Your task to perform on an android device: When is my next appointment? Image 0: 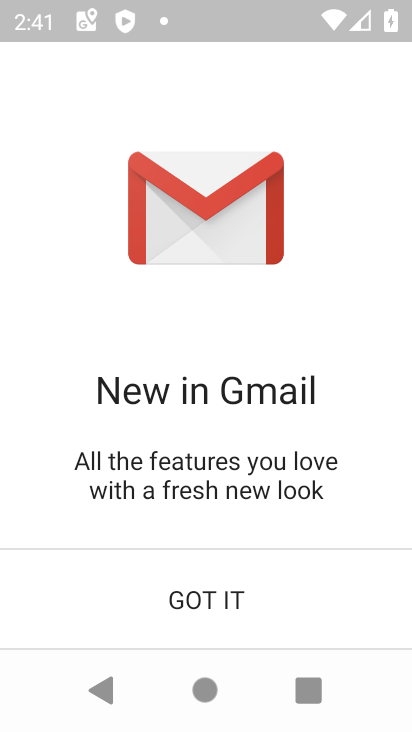
Step 0: click (172, 601)
Your task to perform on an android device: When is my next appointment? Image 1: 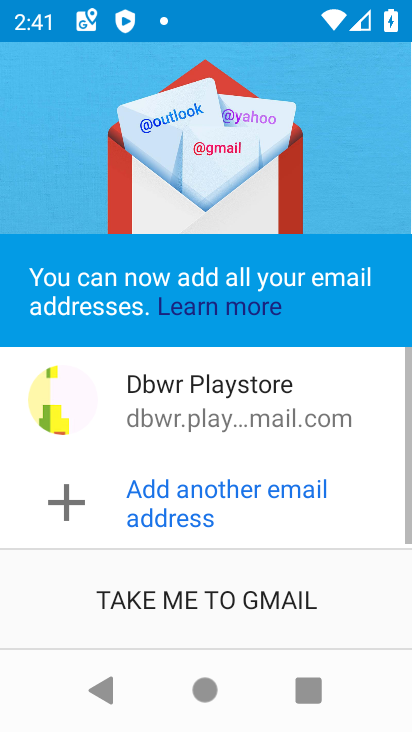
Step 1: press home button
Your task to perform on an android device: When is my next appointment? Image 2: 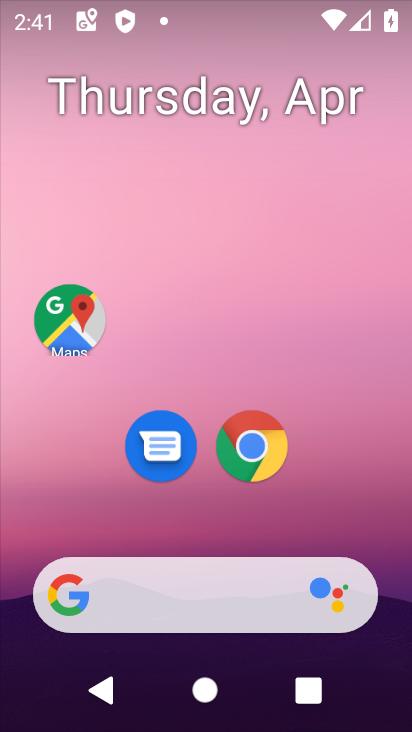
Step 2: drag from (225, 624) to (298, 157)
Your task to perform on an android device: When is my next appointment? Image 3: 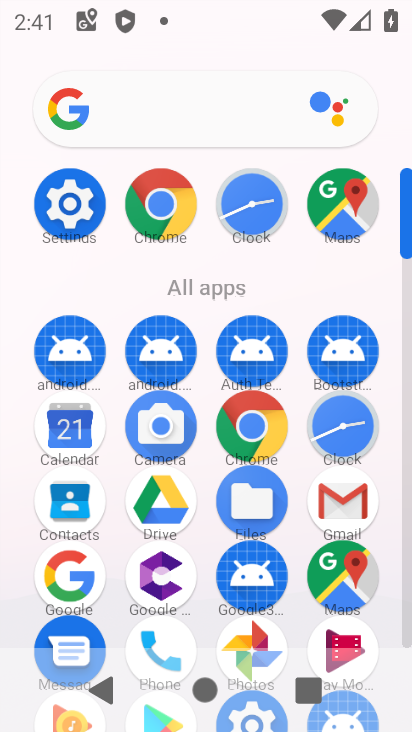
Step 3: click (77, 431)
Your task to perform on an android device: When is my next appointment? Image 4: 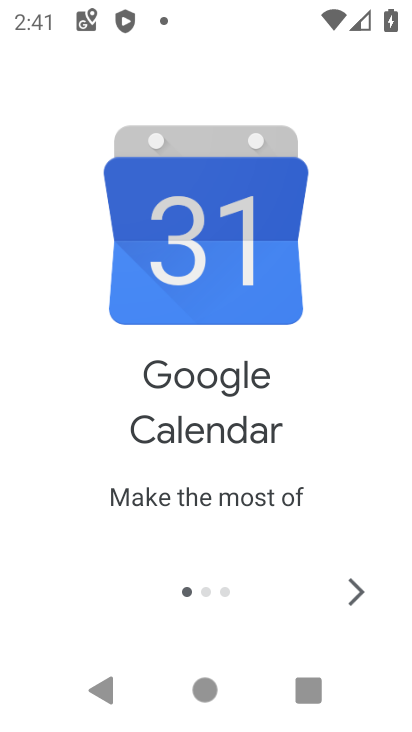
Step 4: click (344, 605)
Your task to perform on an android device: When is my next appointment? Image 5: 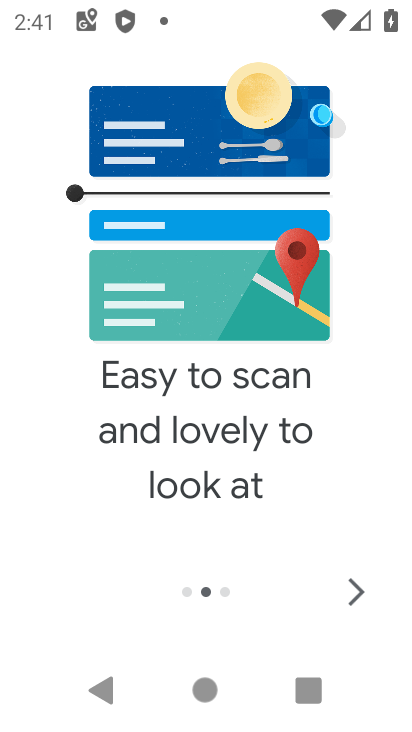
Step 5: click (342, 600)
Your task to perform on an android device: When is my next appointment? Image 6: 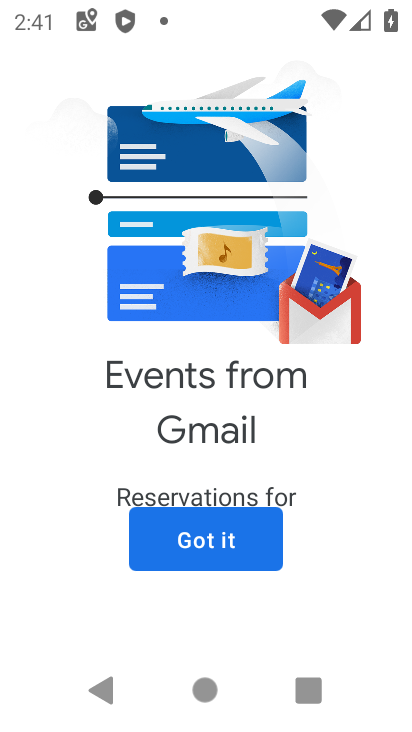
Step 6: click (245, 544)
Your task to perform on an android device: When is my next appointment? Image 7: 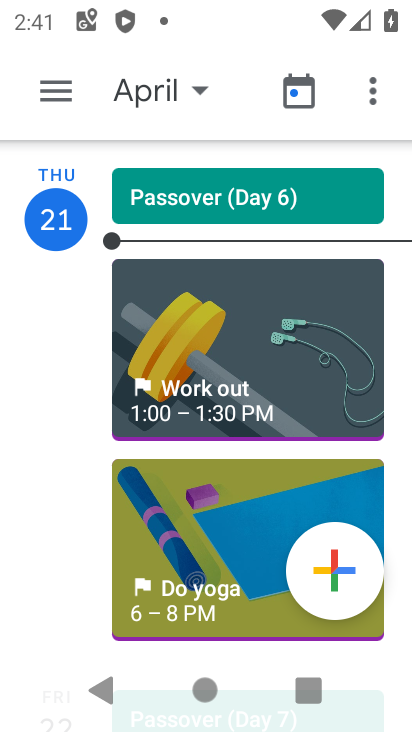
Step 7: click (61, 89)
Your task to perform on an android device: When is my next appointment? Image 8: 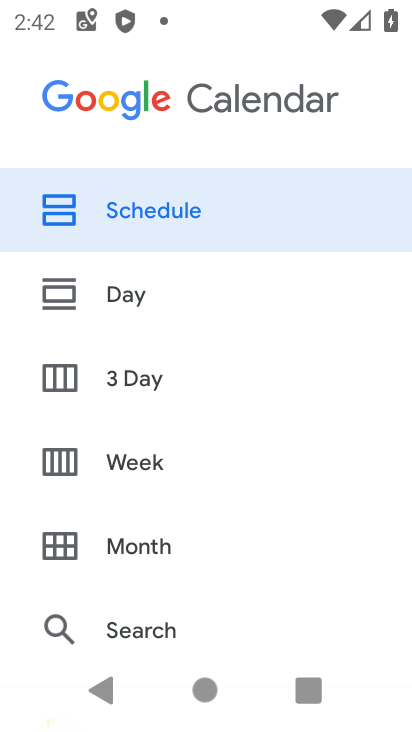
Step 8: click (134, 214)
Your task to perform on an android device: When is my next appointment? Image 9: 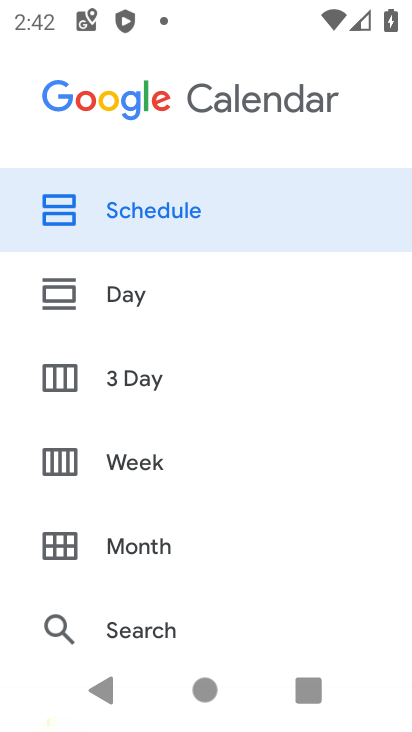
Step 9: click (148, 221)
Your task to perform on an android device: When is my next appointment? Image 10: 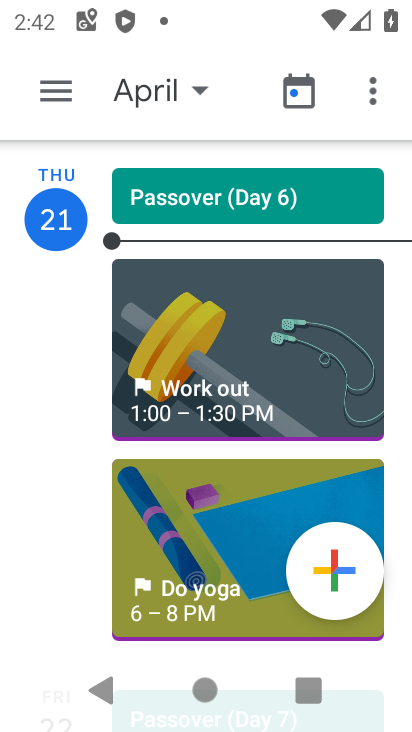
Step 10: task complete